Your task to perform on an android device: Go to display settings Image 0: 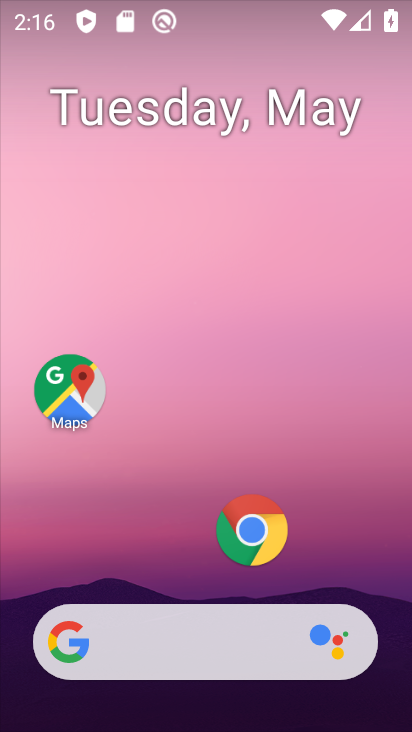
Step 0: drag from (190, 574) to (211, 2)
Your task to perform on an android device: Go to display settings Image 1: 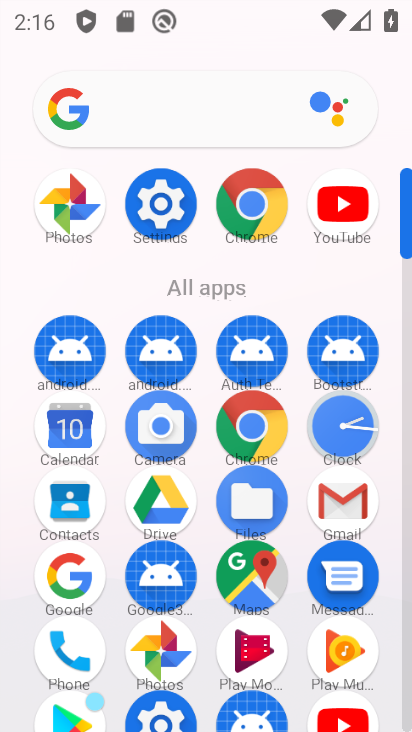
Step 1: click (159, 191)
Your task to perform on an android device: Go to display settings Image 2: 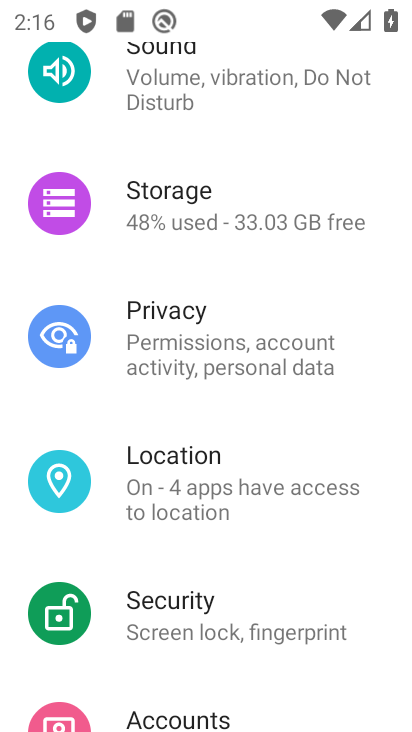
Step 2: drag from (193, 145) to (192, 731)
Your task to perform on an android device: Go to display settings Image 3: 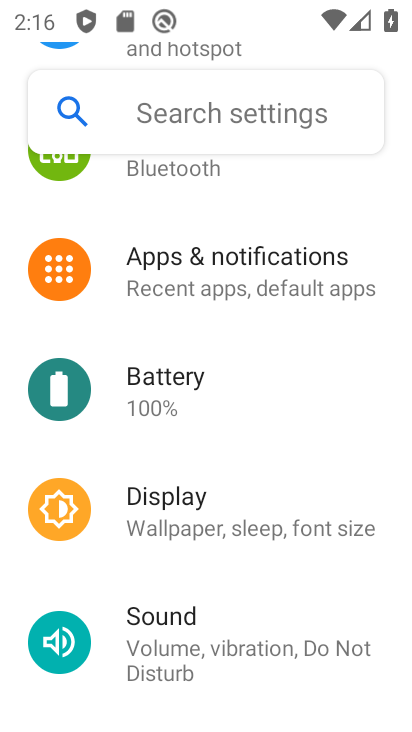
Step 3: click (200, 500)
Your task to perform on an android device: Go to display settings Image 4: 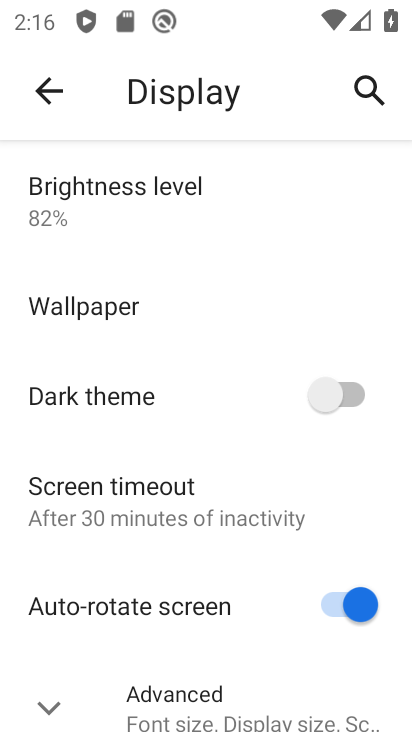
Step 4: click (42, 694)
Your task to perform on an android device: Go to display settings Image 5: 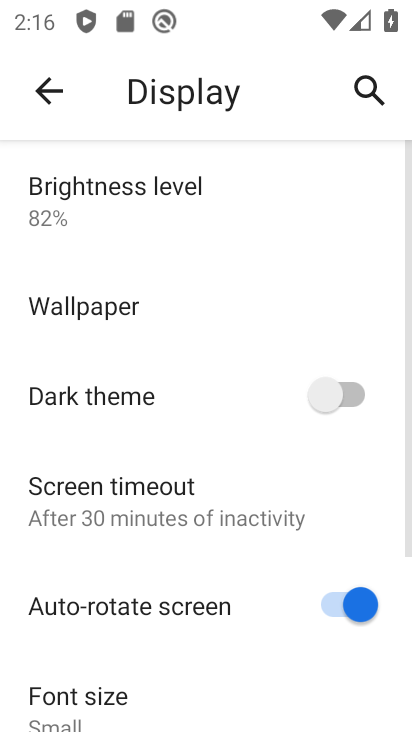
Step 5: task complete